Your task to perform on an android device: Add "dell xps" to the cart on target, then select checkout. Image 0: 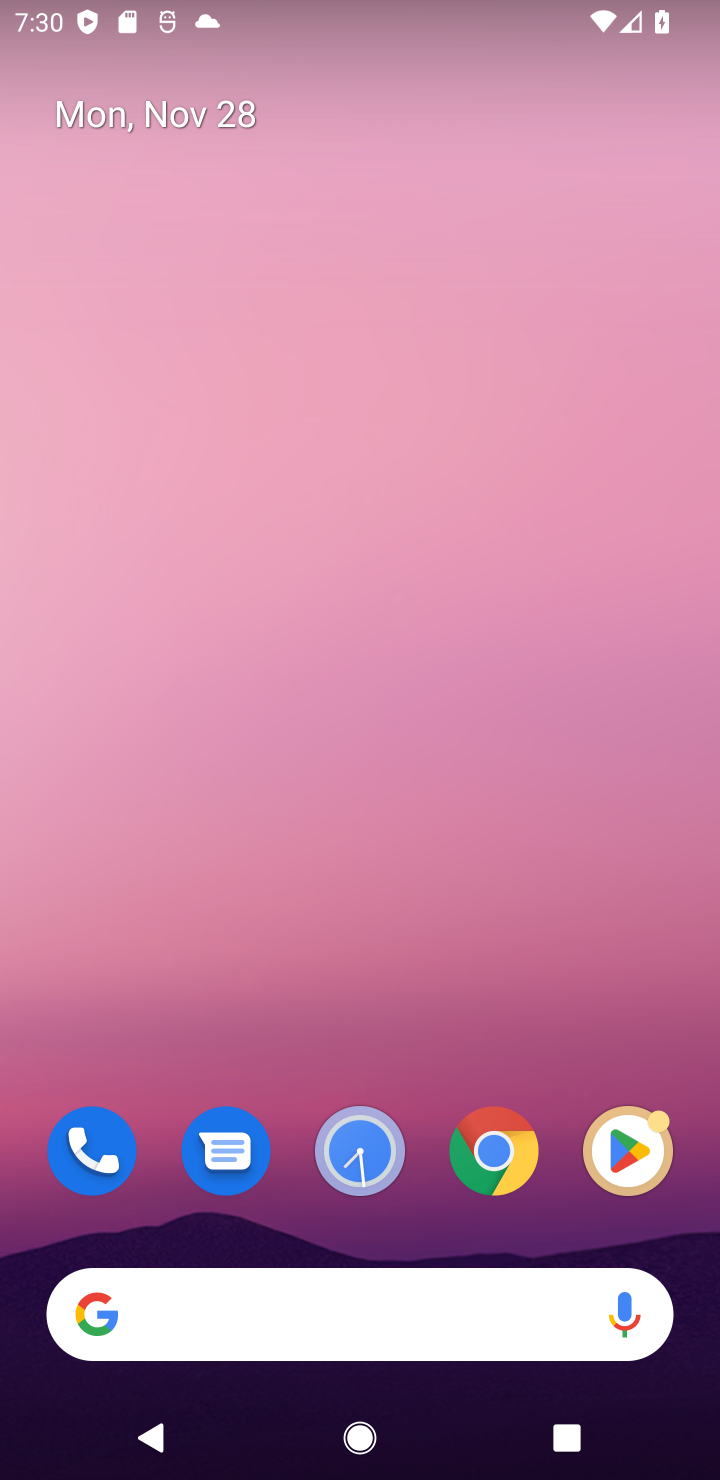
Step 0: click (394, 1351)
Your task to perform on an android device: Add "dell xps" to the cart on target, then select checkout. Image 1: 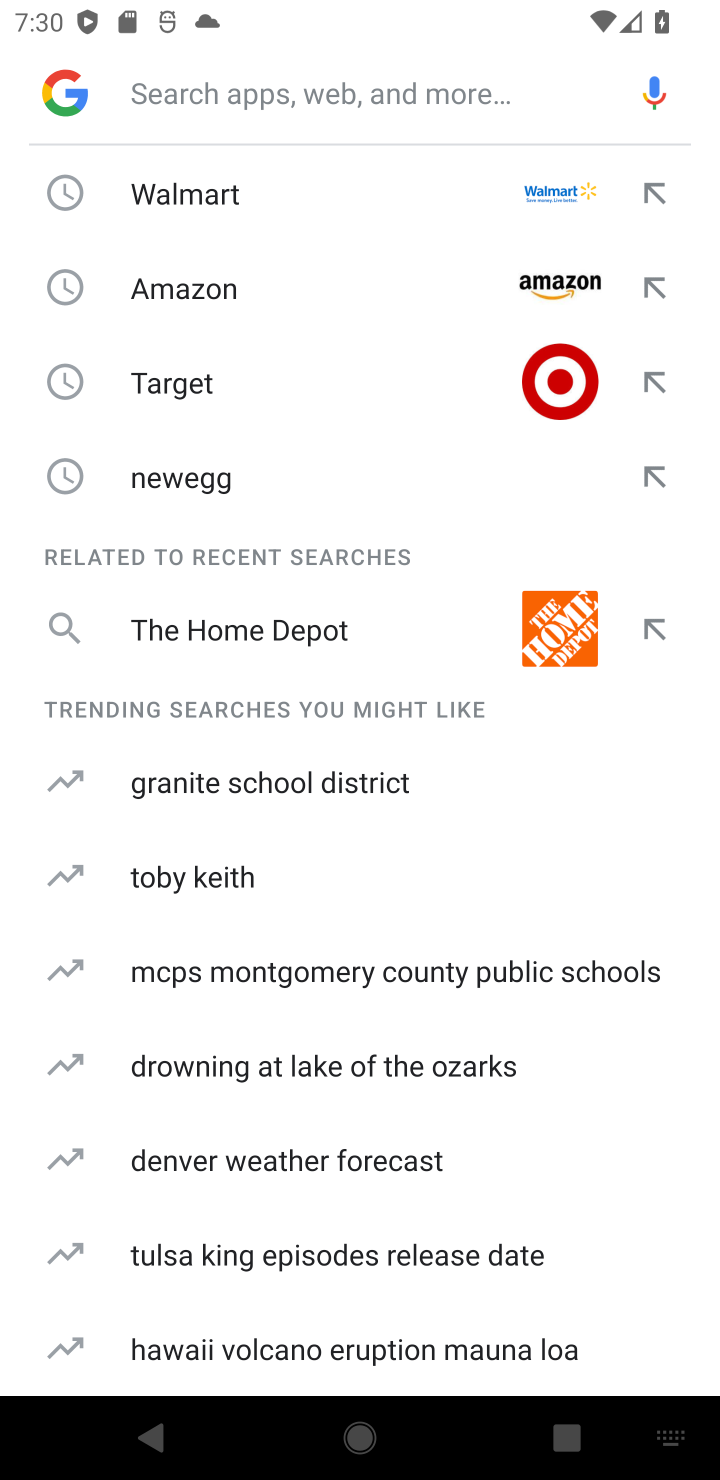
Step 1: click (188, 387)
Your task to perform on an android device: Add "dell xps" to the cart on target, then select checkout. Image 2: 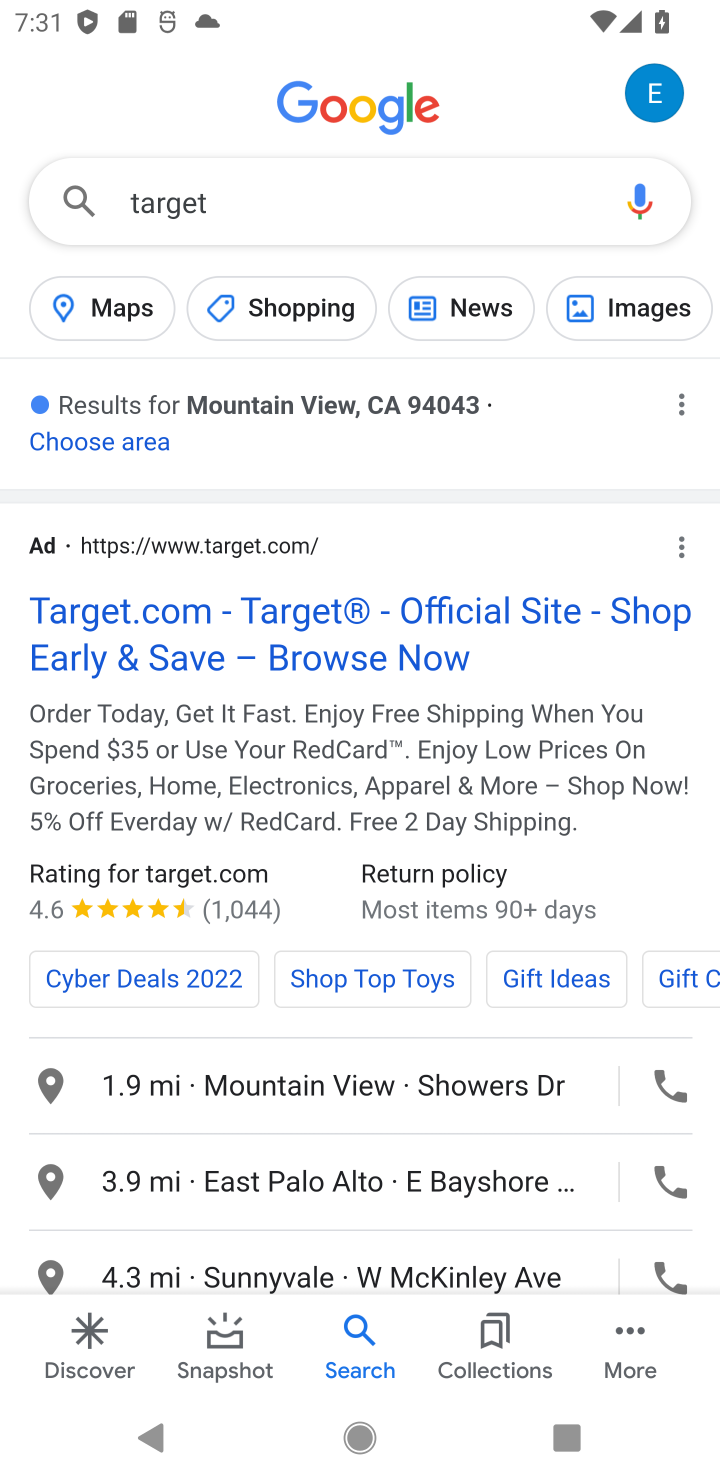
Step 2: click (156, 612)
Your task to perform on an android device: Add "dell xps" to the cart on target, then select checkout. Image 3: 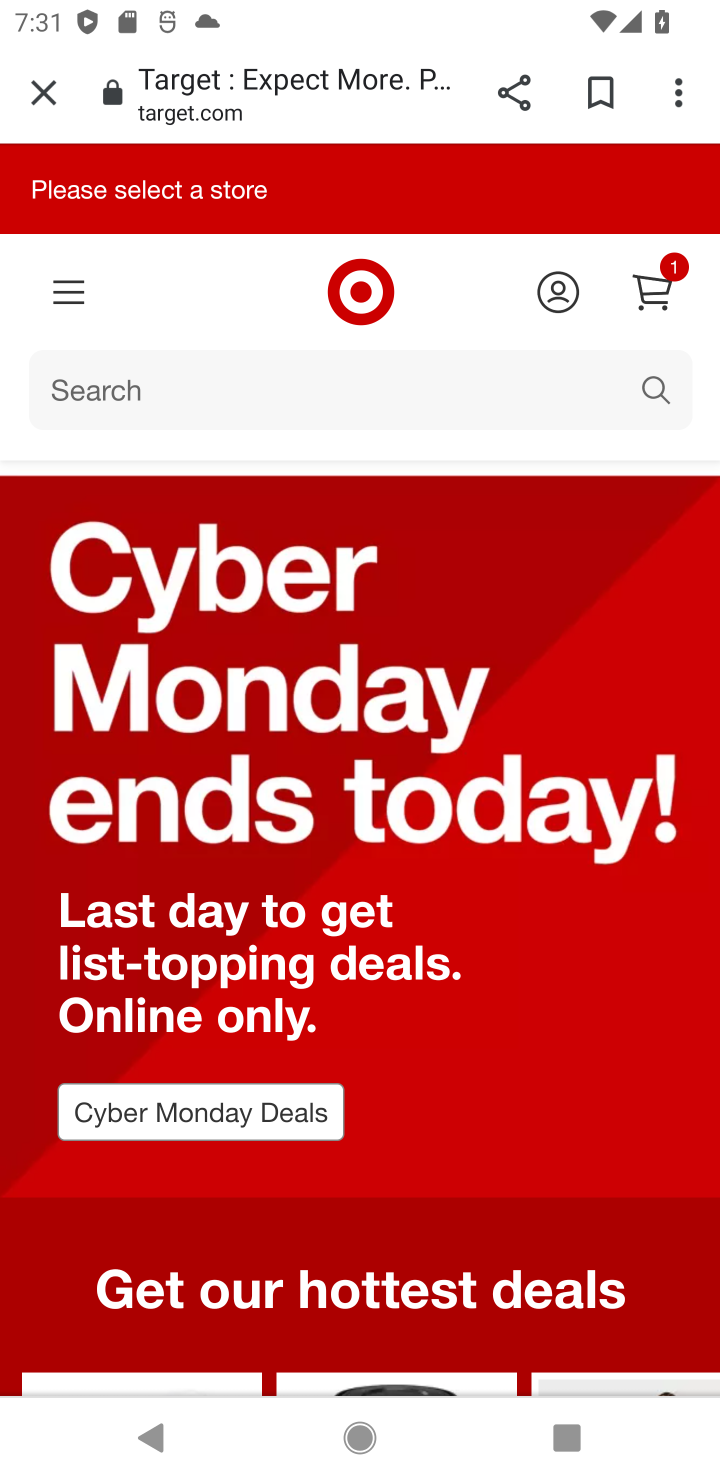
Step 3: click (226, 407)
Your task to perform on an android device: Add "dell xps" to the cart on target, then select checkout. Image 4: 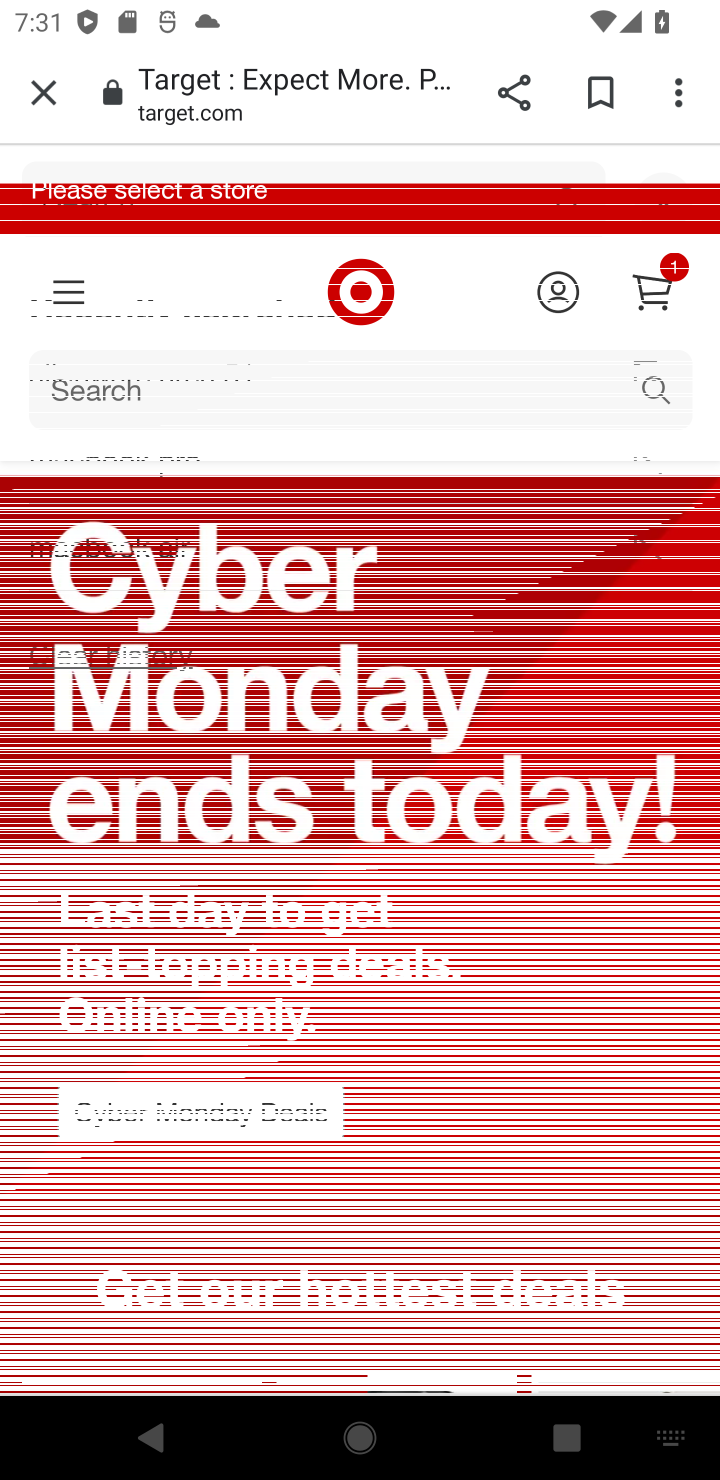
Step 4: type "dell xps"
Your task to perform on an android device: Add "dell xps" to the cart on target, then select checkout. Image 5: 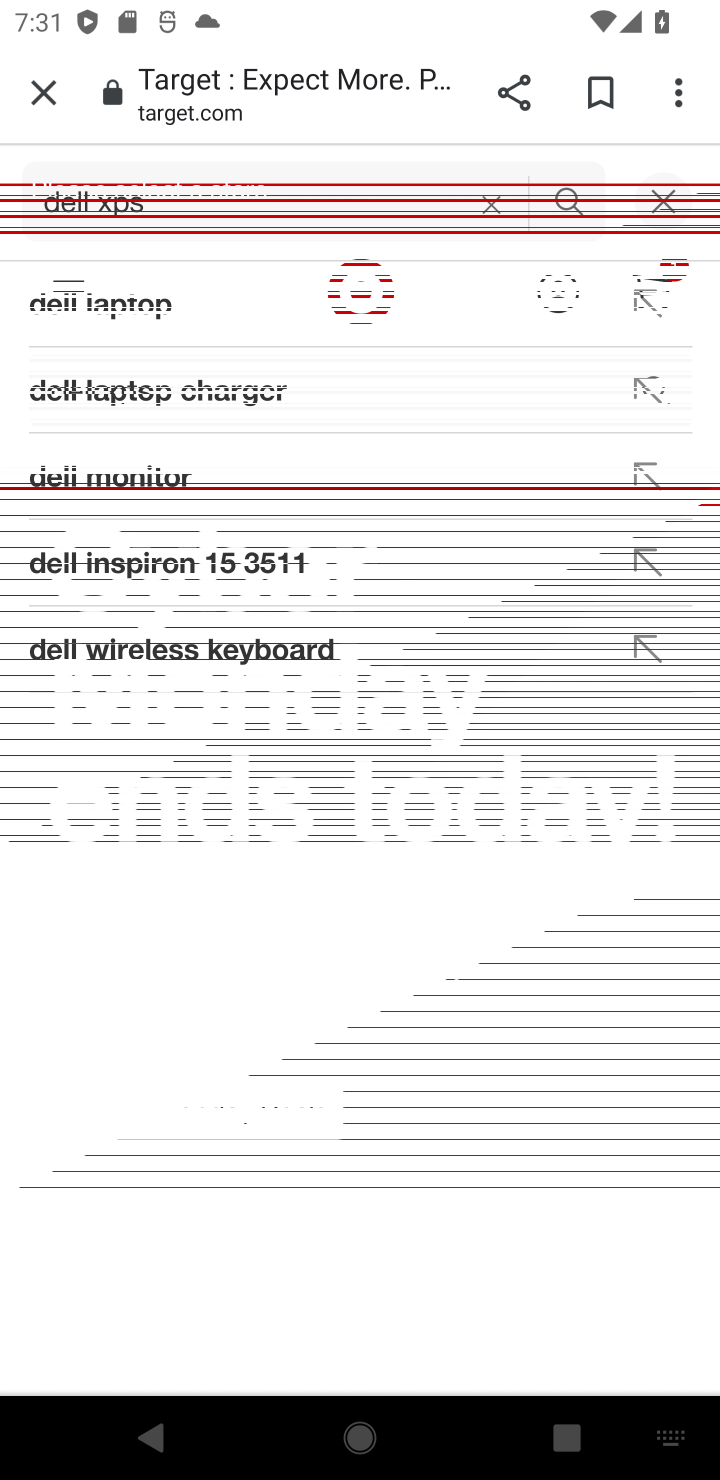
Step 5: task complete